Your task to perform on an android device: check out phone information Image 0: 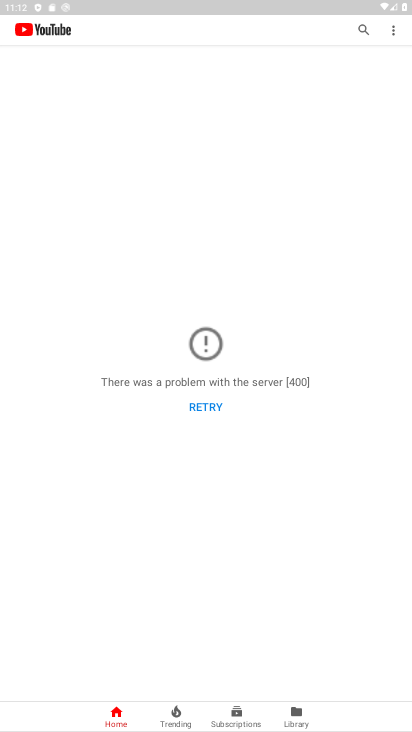
Step 0: press home button
Your task to perform on an android device: check out phone information Image 1: 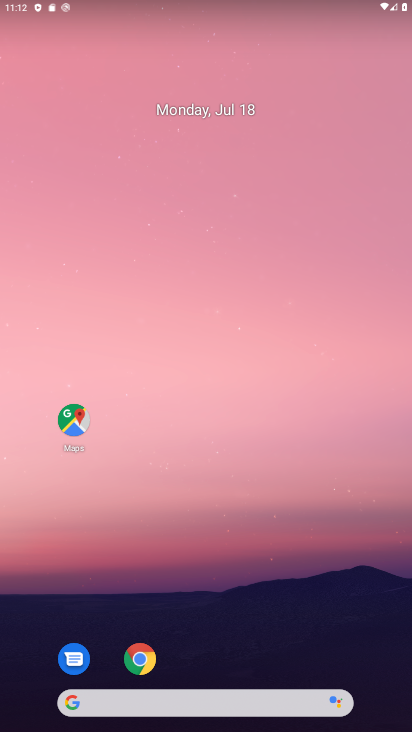
Step 1: drag from (333, 615) to (295, 146)
Your task to perform on an android device: check out phone information Image 2: 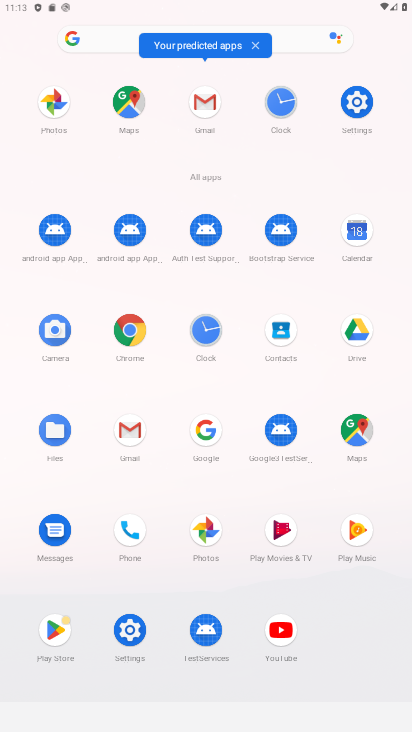
Step 2: click (363, 101)
Your task to perform on an android device: check out phone information Image 3: 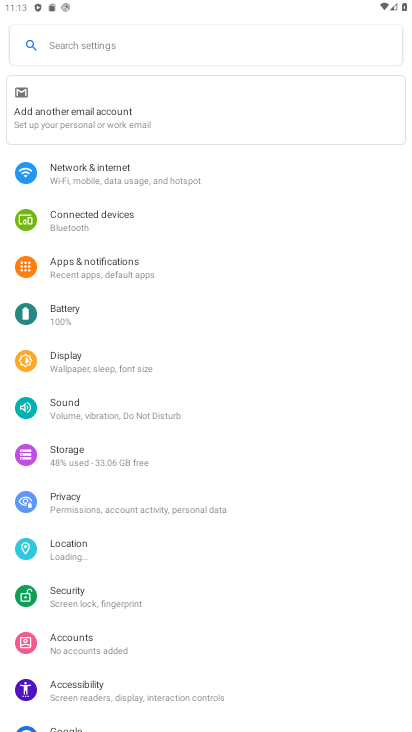
Step 3: drag from (163, 686) to (164, 242)
Your task to perform on an android device: check out phone information Image 4: 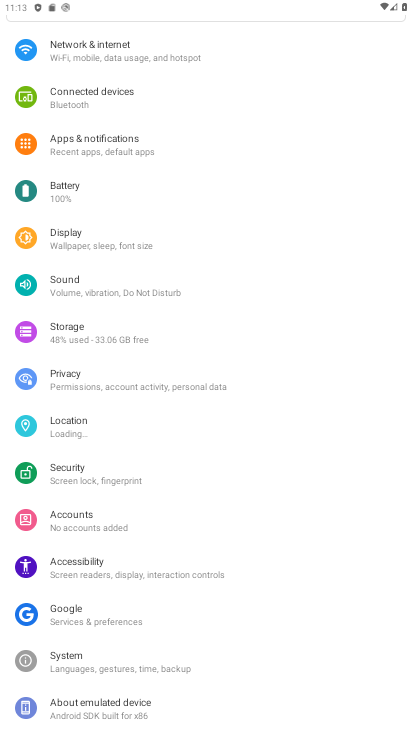
Step 4: click (161, 716)
Your task to perform on an android device: check out phone information Image 5: 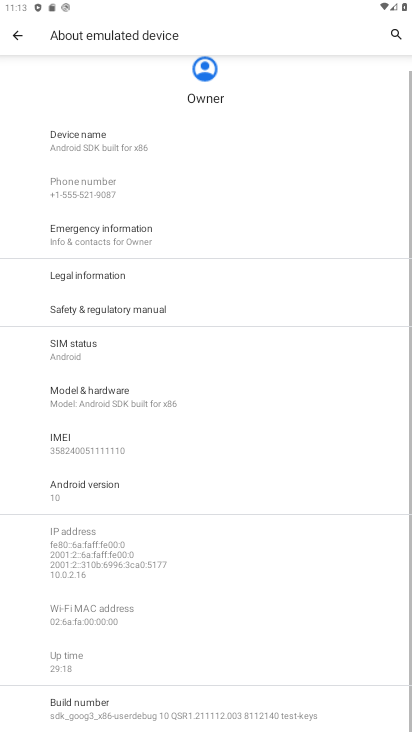
Step 5: task complete